Your task to perform on an android device: Go to calendar. Show me events next week Image 0: 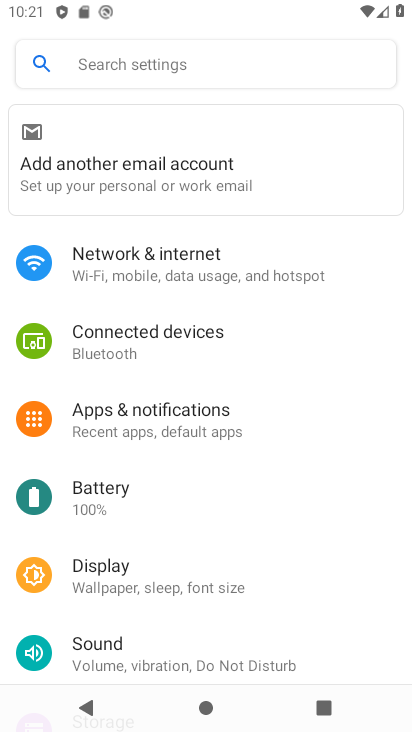
Step 0: press home button
Your task to perform on an android device: Go to calendar. Show me events next week Image 1: 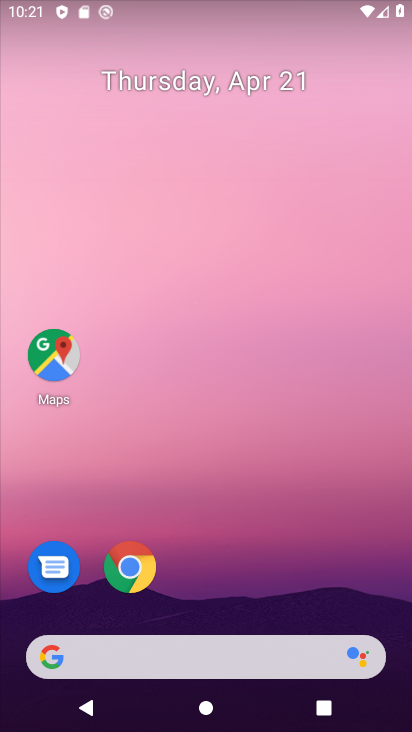
Step 1: drag from (263, 469) to (288, 19)
Your task to perform on an android device: Go to calendar. Show me events next week Image 2: 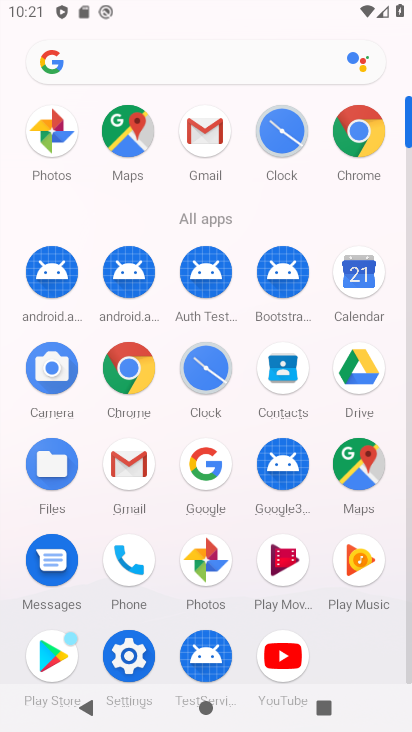
Step 2: click (359, 274)
Your task to perform on an android device: Go to calendar. Show me events next week Image 3: 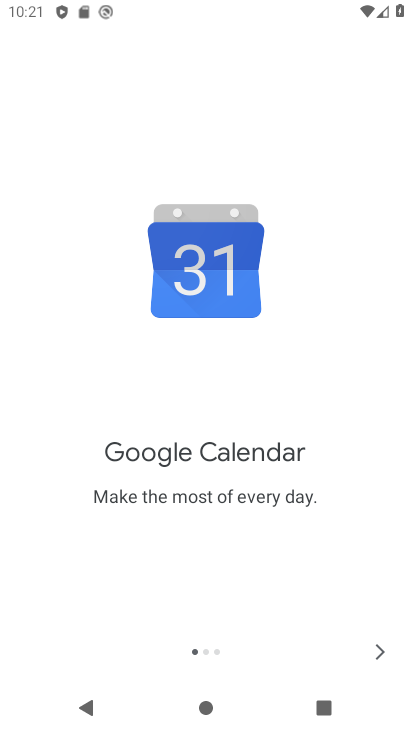
Step 3: click (383, 651)
Your task to perform on an android device: Go to calendar. Show me events next week Image 4: 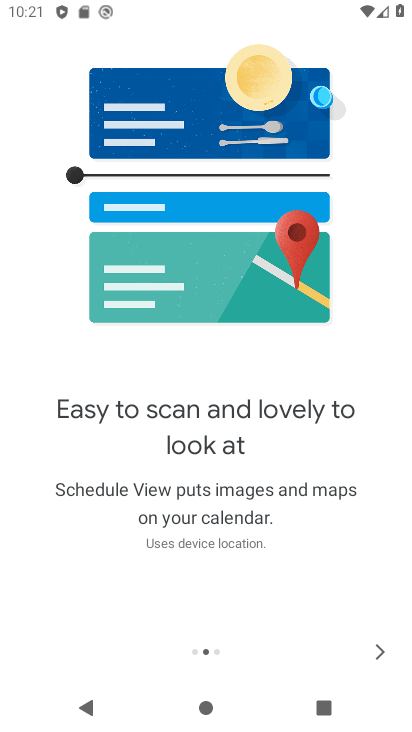
Step 4: click (381, 654)
Your task to perform on an android device: Go to calendar. Show me events next week Image 5: 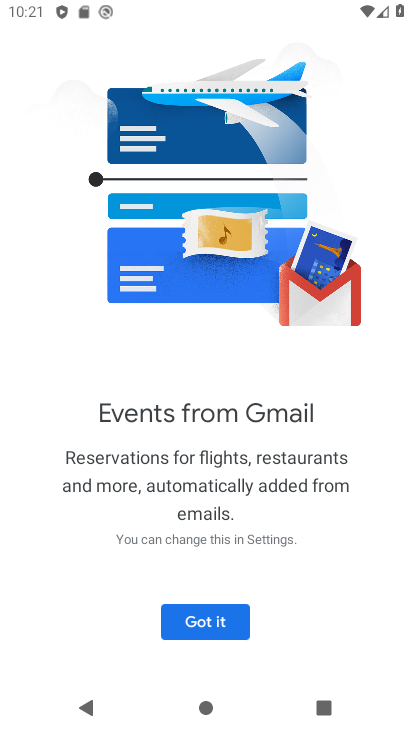
Step 5: click (207, 624)
Your task to perform on an android device: Go to calendar. Show me events next week Image 6: 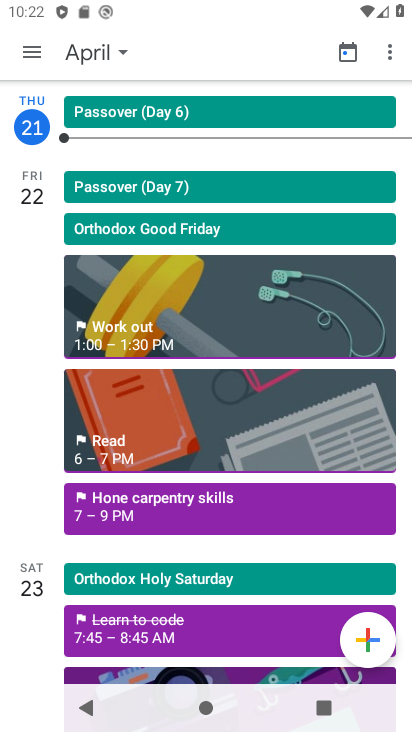
Step 6: click (122, 56)
Your task to perform on an android device: Go to calendar. Show me events next week Image 7: 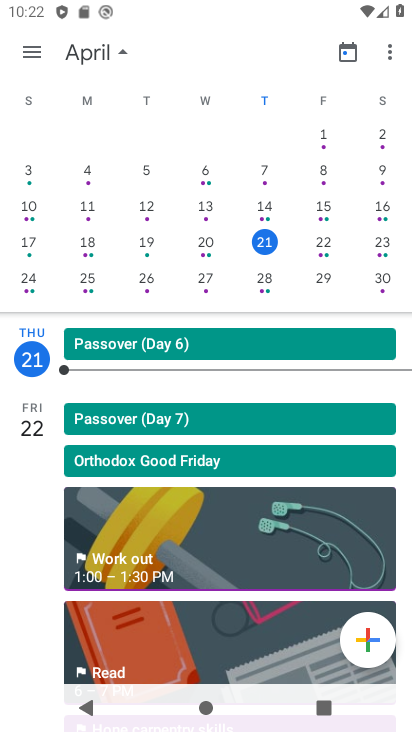
Step 7: click (150, 283)
Your task to perform on an android device: Go to calendar. Show me events next week Image 8: 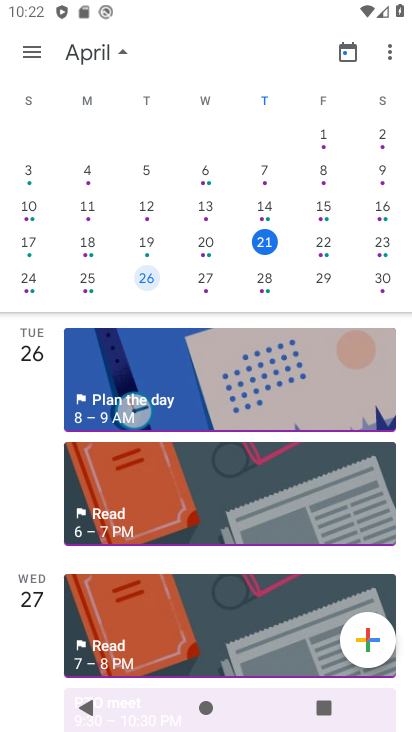
Step 8: click (34, 55)
Your task to perform on an android device: Go to calendar. Show me events next week Image 9: 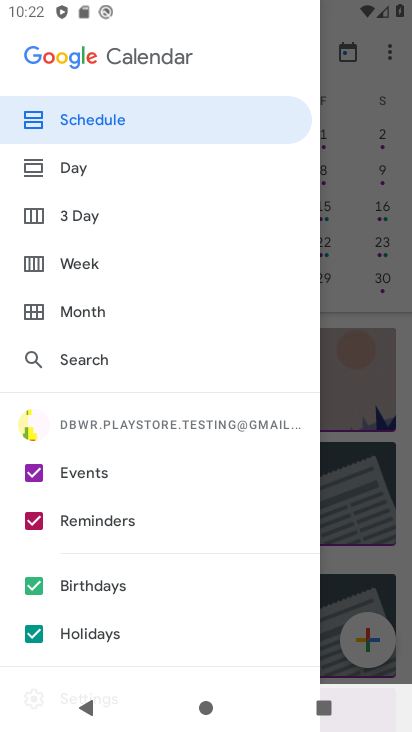
Step 9: click (95, 262)
Your task to perform on an android device: Go to calendar. Show me events next week Image 10: 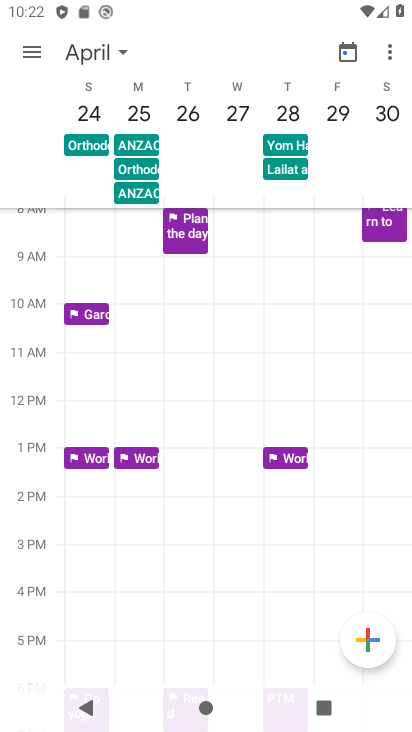
Step 10: task complete